Your task to perform on an android device: Open internet settings Image 0: 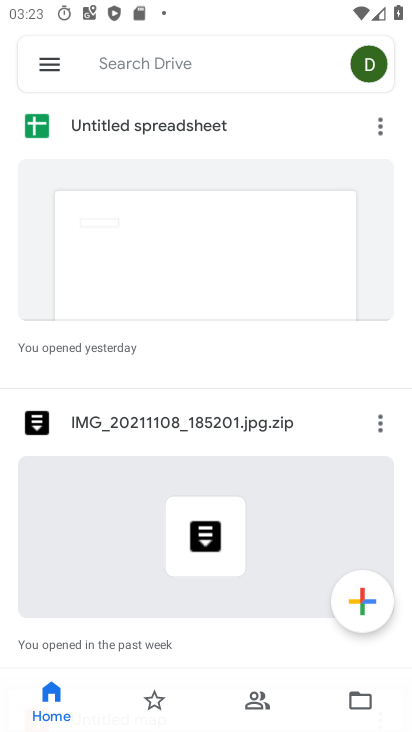
Step 0: press home button
Your task to perform on an android device: Open internet settings Image 1: 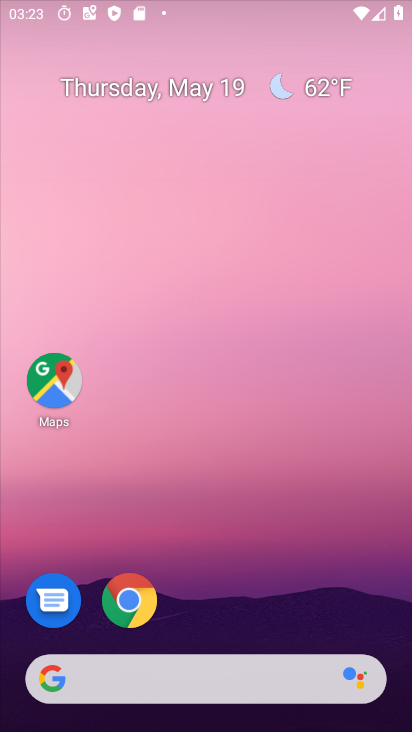
Step 1: drag from (8, 545) to (234, 135)
Your task to perform on an android device: Open internet settings Image 2: 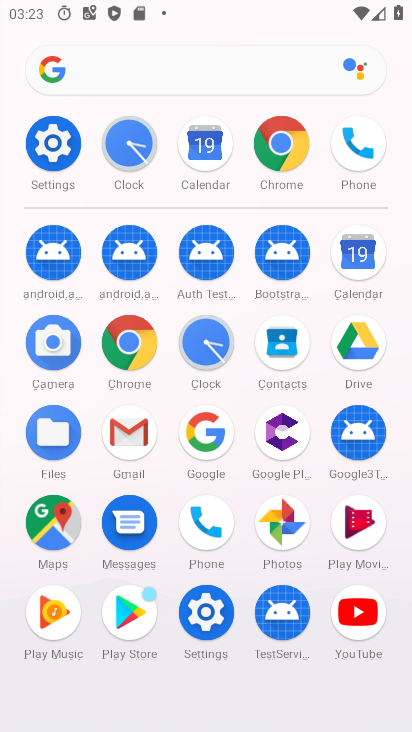
Step 2: click (39, 139)
Your task to perform on an android device: Open internet settings Image 3: 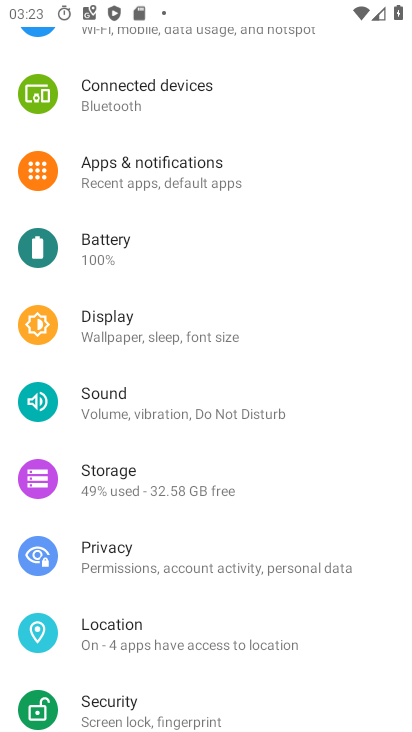
Step 3: drag from (171, 70) to (154, 467)
Your task to perform on an android device: Open internet settings Image 4: 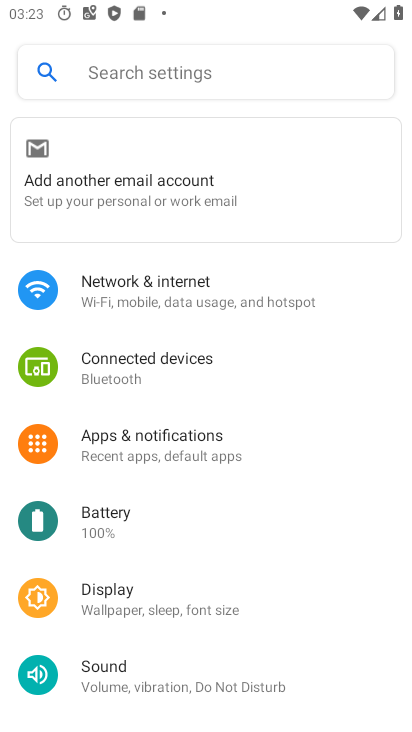
Step 4: click (183, 295)
Your task to perform on an android device: Open internet settings Image 5: 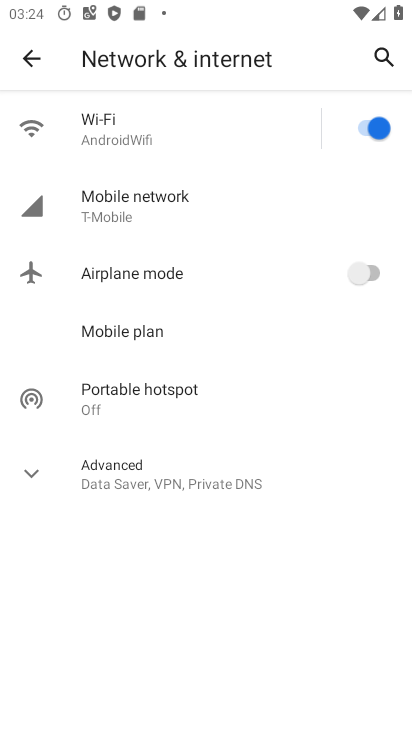
Step 5: task complete